Your task to perform on an android device: Go to display settings Image 0: 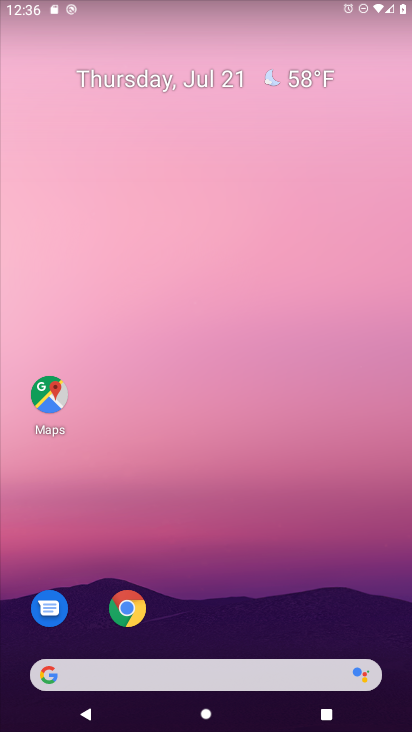
Step 0: press home button
Your task to perform on an android device: Go to display settings Image 1: 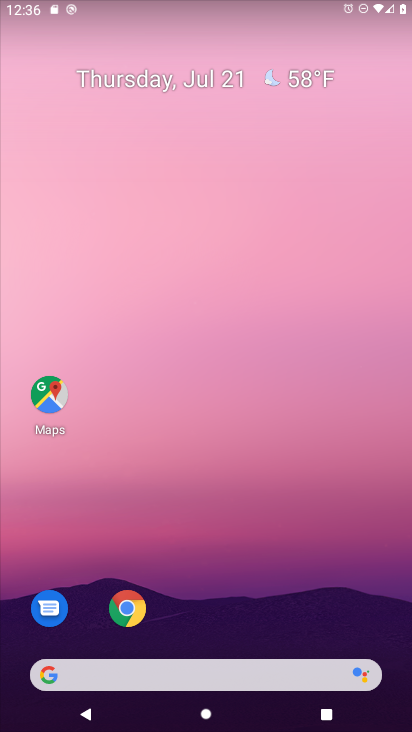
Step 1: drag from (246, 566) to (219, 2)
Your task to perform on an android device: Go to display settings Image 2: 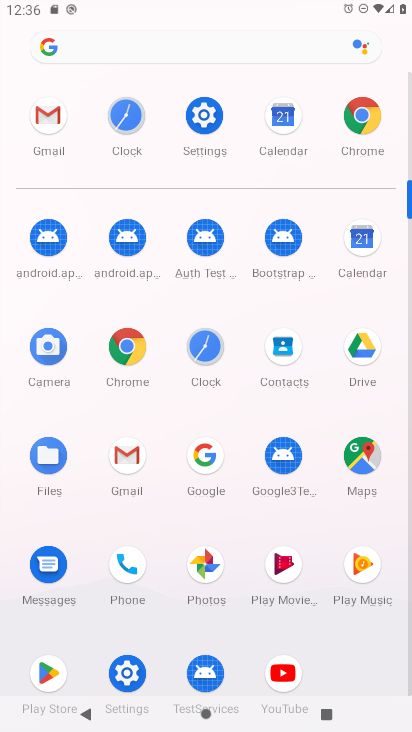
Step 2: click (209, 128)
Your task to perform on an android device: Go to display settings Image 3: 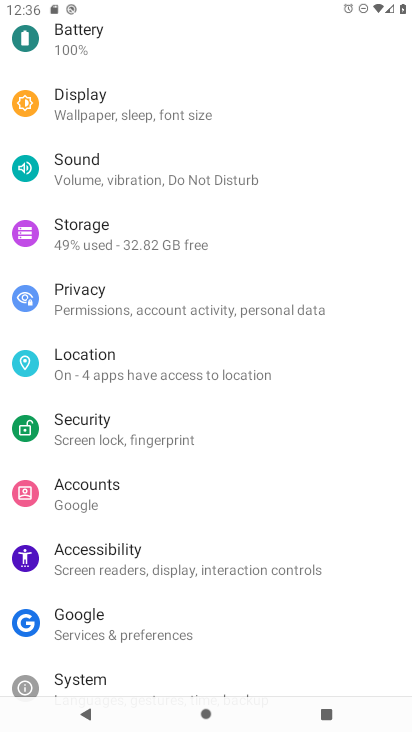
Step 3: click (77, 95)
Your task to perform on an android device: Go to display settings Image 4: 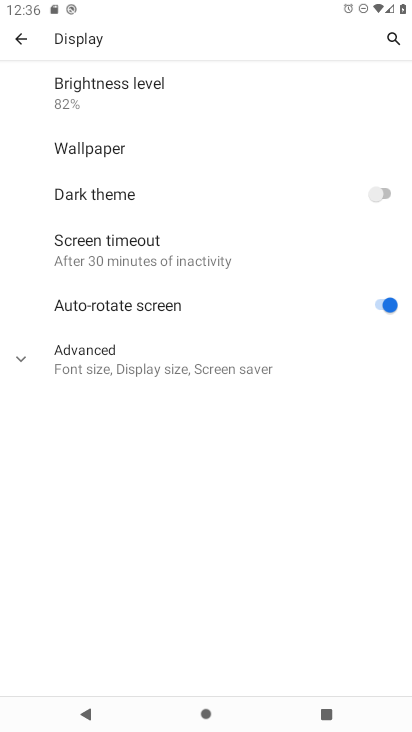
Step 4: task complete